Your task to perform on an android device: Go to Maps Image 0: 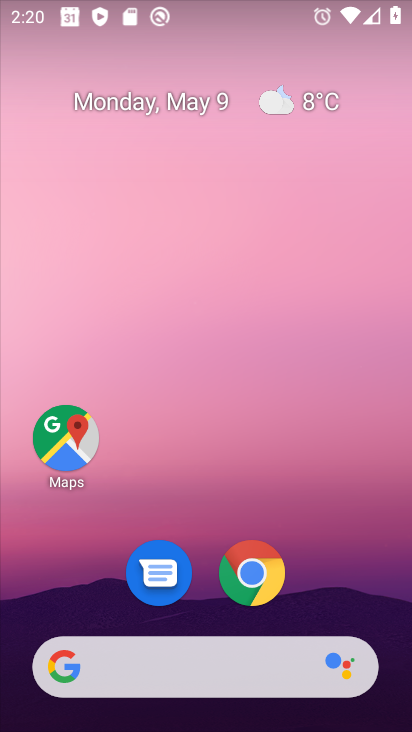
Step 0: click (399, 467)
Your task to perform on an android device: Go to Maps Image 1: 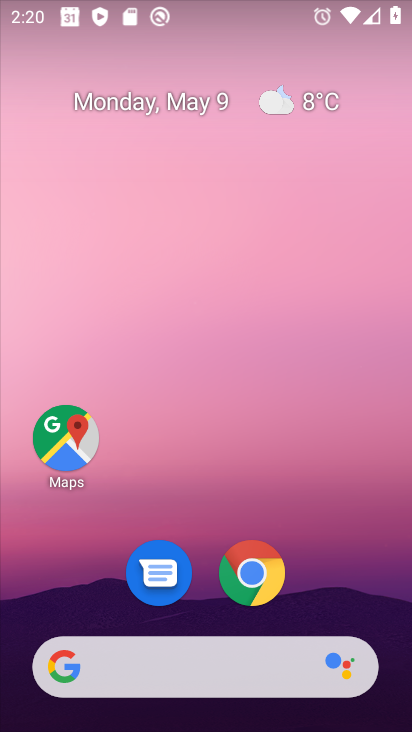
Step 1: click (55, 440)
Your task to perform on an android device: Go to Maps Image 2: 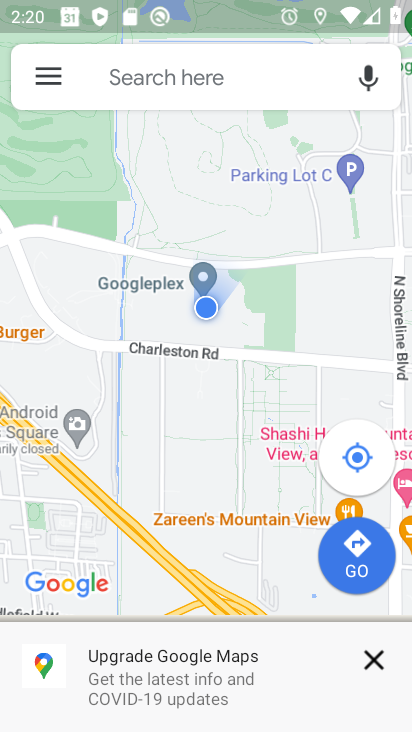
Step 2: task complete